Your task to perform on an android device: Open Google Chrome Image 0: 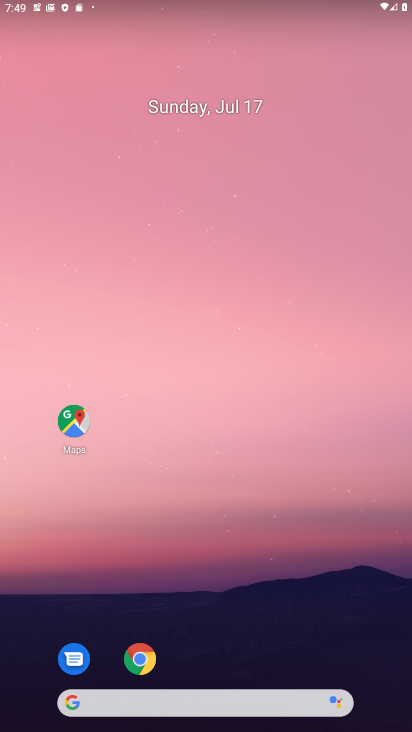
Step 0: click (131, 657)
Your task to perform on an android device: Open Google Chrome Image 1: 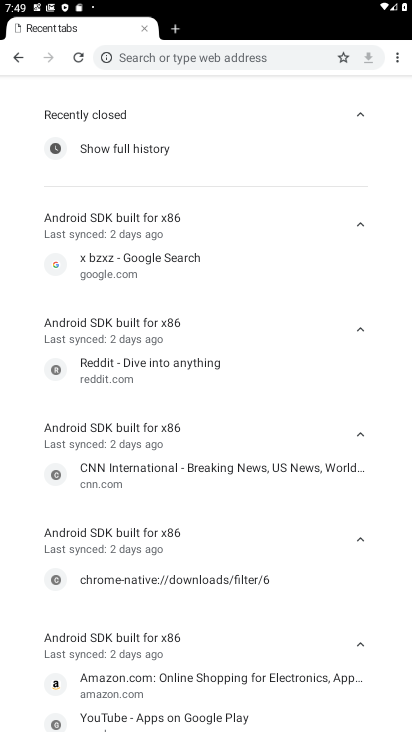
Step 1: task complete